Your task to perform on an android device: turn on data saver in the chrome app Image 0: 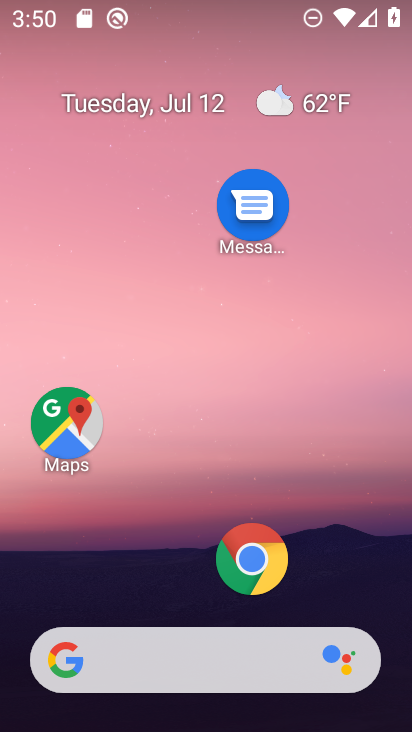
Step 0: click (238, 549)
Your task to perform on an android device: turn on data saver in the chrome app Image 1: 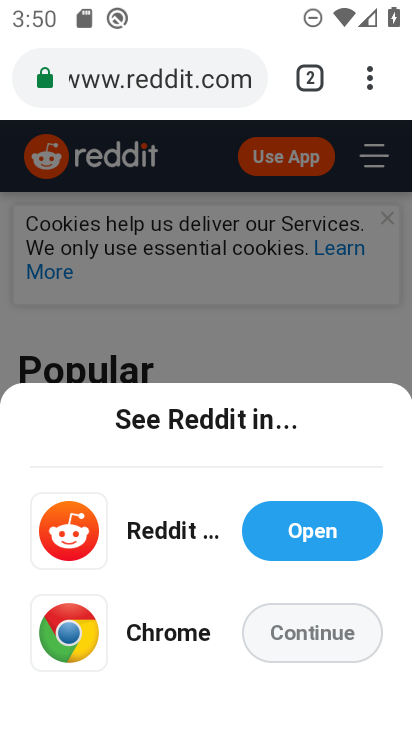
Step 1: drag from (371, 79) to (139, 621)
Your task to perform on an android device: turn on data saver in the chrome app Image 2: 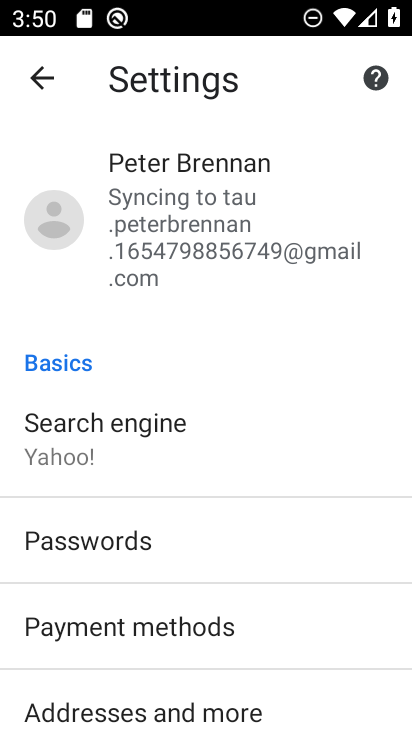
Step 2: drag from (90, 709) to (267, 63)
Your task to perform on an android device: turn on data saver in the chrome app Image 3: 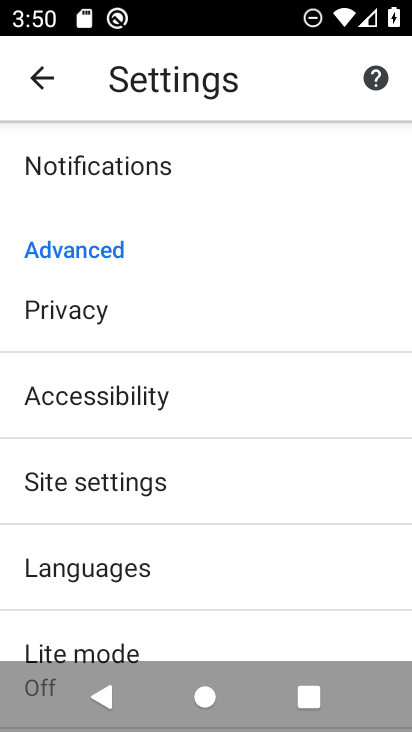
Step 3: click (96, 642)
Your task to perform on an android device: turn on data saver in the chrome app Image 4: 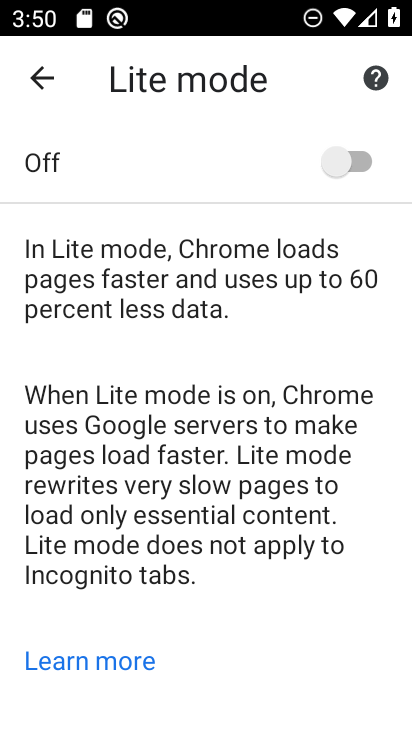
Step 4: click (339, 159)
Your task to perform on an android device: turn on data saver in the chrome app Image 5: 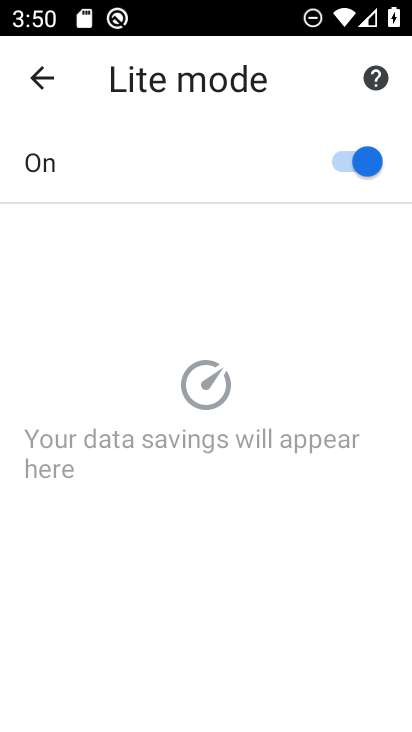
Step 5: task complete